Your task to perform on an android device: What's on my calendar today? Image 0: 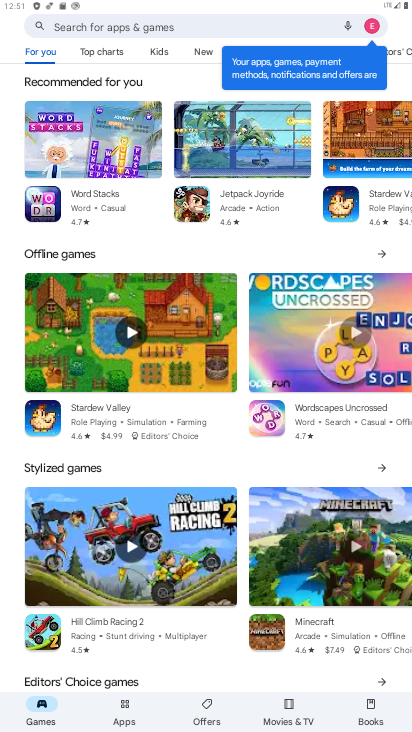
Step 0: press home button
Your task to perform on an android device: What's on my calendar today? Image 1: 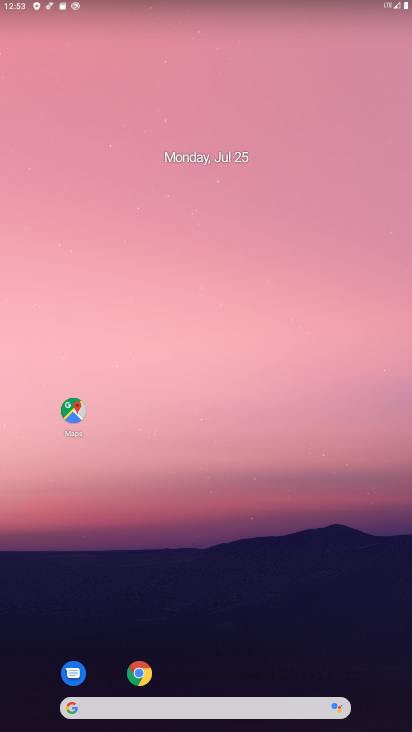
Step 1: drag from (208, 730) to (240, 155)
Your task to perform on an android device: What's on my calendar today? Image 2: 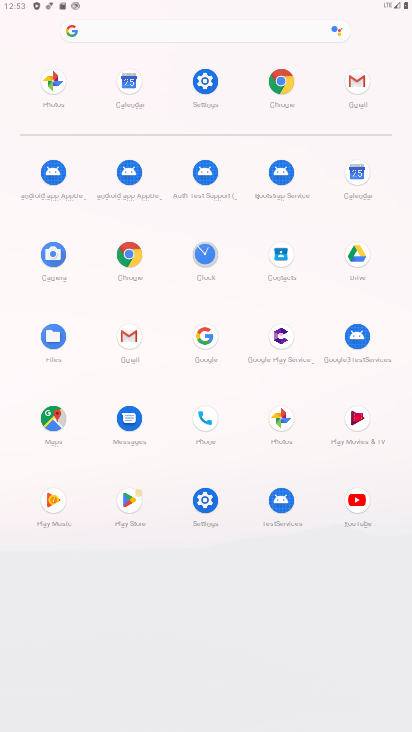
Step 2: click (358, 179)
Your task to perform on an android device: What's on my calendar today? Image 3: 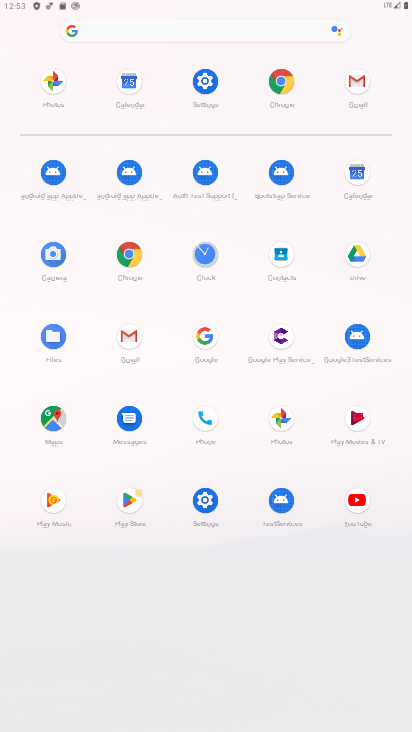
Step 3: click (358, 179)
Your task to perform on an android device: What's on my calendar today? Image 4: 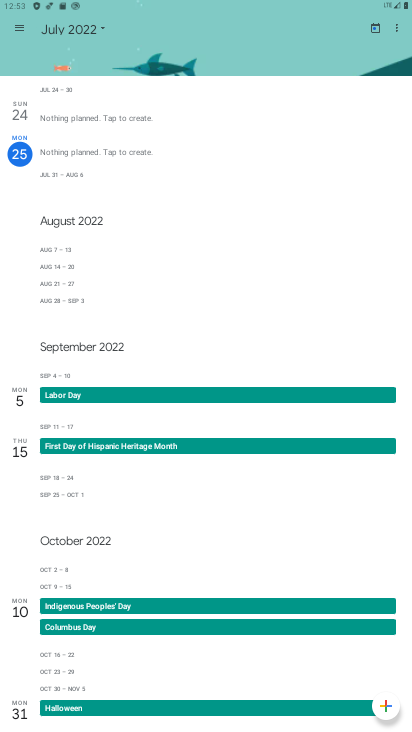
Step 4: click (59, 22)
Your task to perform on an android device: What's on my calendar today? Image 5: 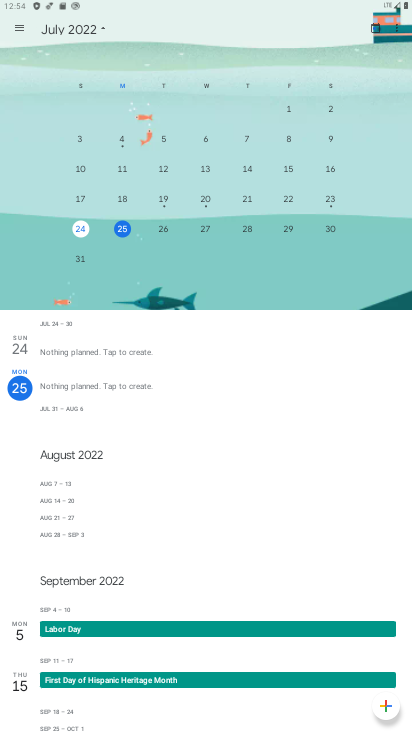
Step 5: task complete